Your task to perform on an android device: Go to Android settings Image 0: 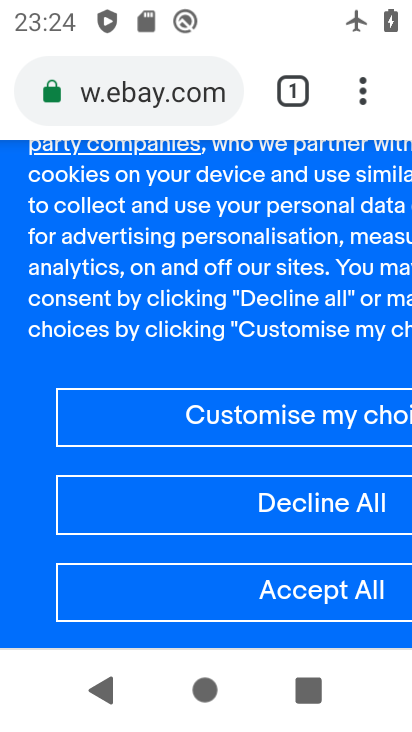
Step 0: press home button
Your task to perform on an android device: Go to Android settings Image 1: 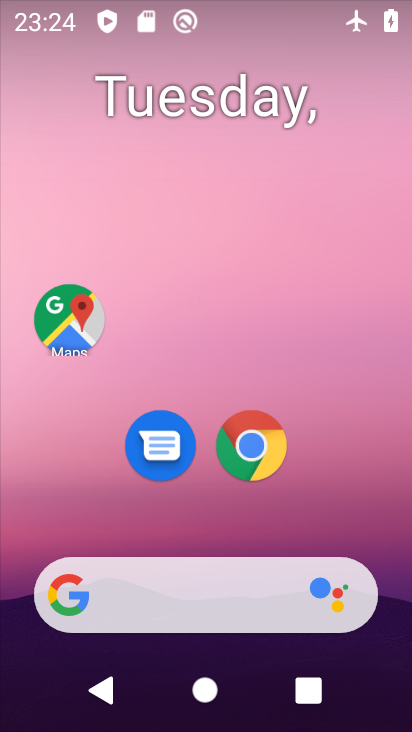
Step 1: drag from (307, 521) to (352, 92)
Your task to perform on an android device: Go to Android settings Image 2: 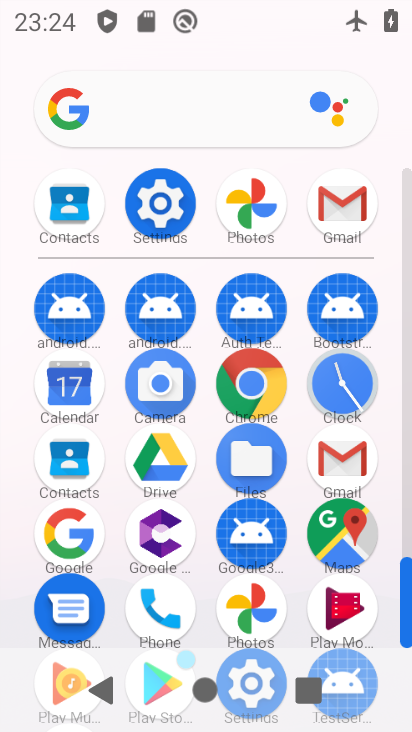
Step 2: click (159, 205)
Your task to perform on an android device: Go to Android settings Image 3: 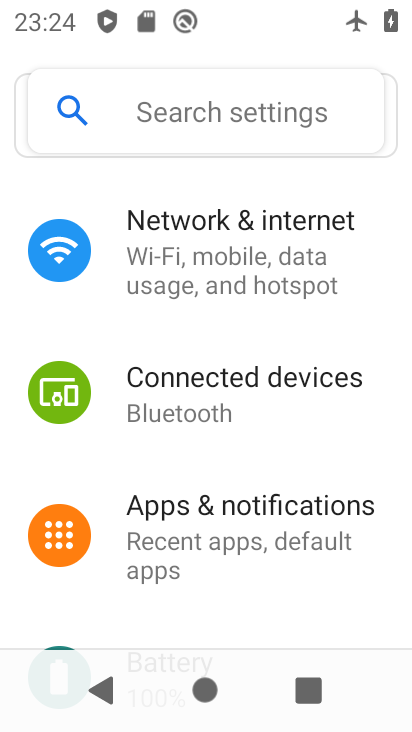
Step 3: drag from (264, 600) to (265, 288)
Your task to perform on an android device: Go to Android settings Image 4: 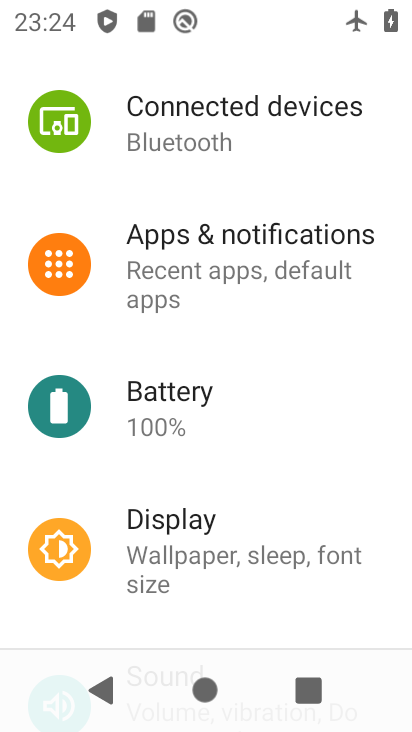
Step 4: drag from (238, 572) to (259, 310)
Your task to perform on an android device: Go to Android settings Image 5: 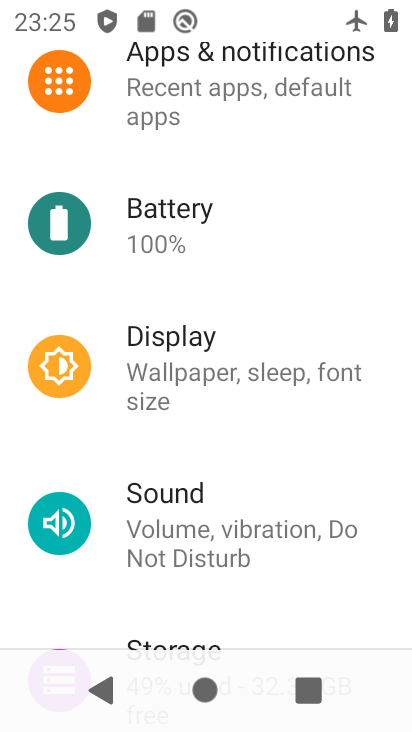
Step 5: drag from (245, 469) to (254, 225)
Your task to perform on an android device: Go to Android settings Image 6: 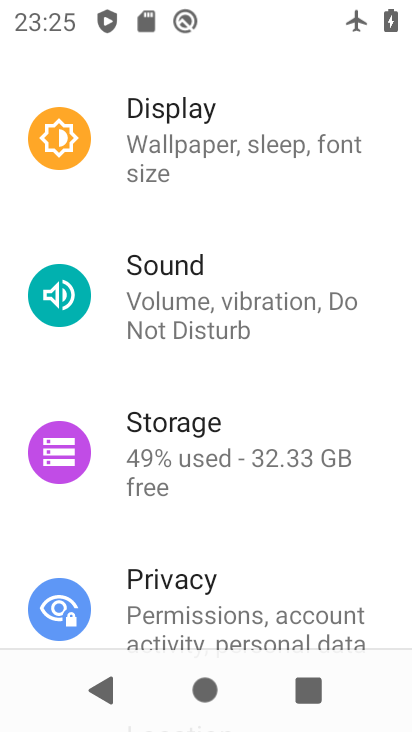
Step 6: drag from (214, 534) to (250, 278)
Your task to perform on an android device: Go to Android settings Image 7: 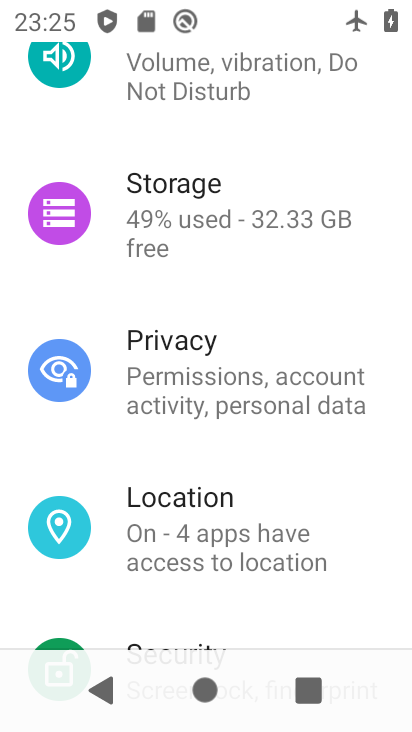
Step 7: drag from (228, 522) to (228, 267)
Your task to perform on an android device: Go to Android settings Image 8: 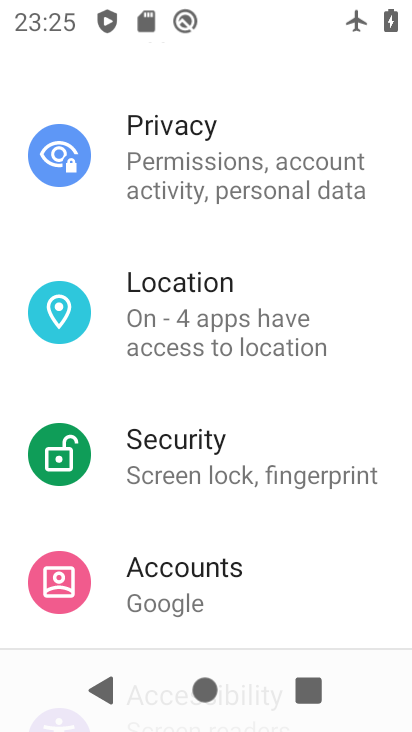
Step 8: drag from (217, 551) to (291, 284)
Your task to perform on an android device: Go to Android settings Image 9: 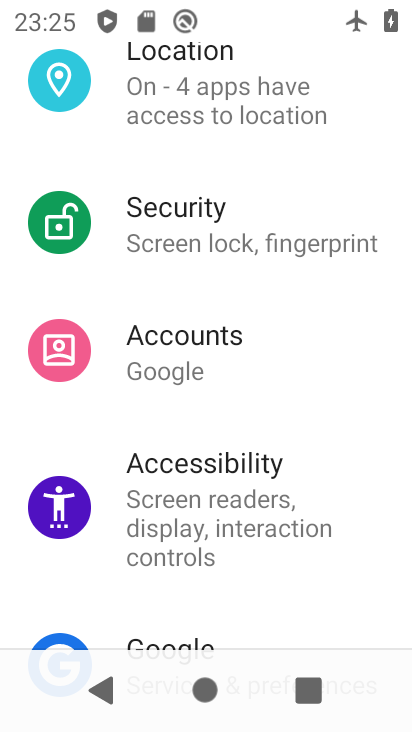
Step 9: drag from (236, 582) to (260, 331)
Your task to perform on an android device: Go to Android settings Image 10: 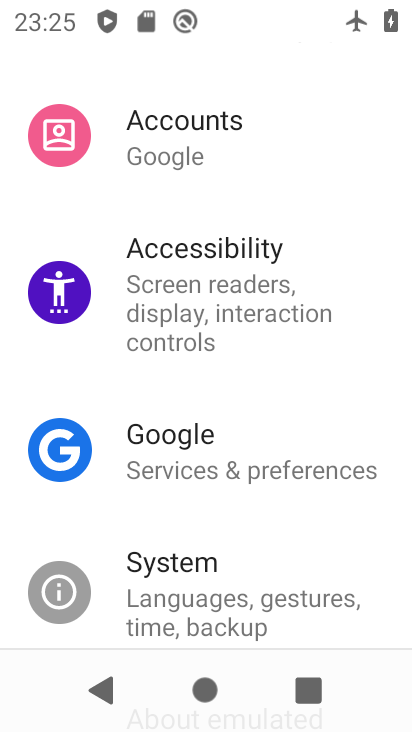
Step 10: click (217, 588)
Your task to perform on an android device: Go to Android settings Image 11: 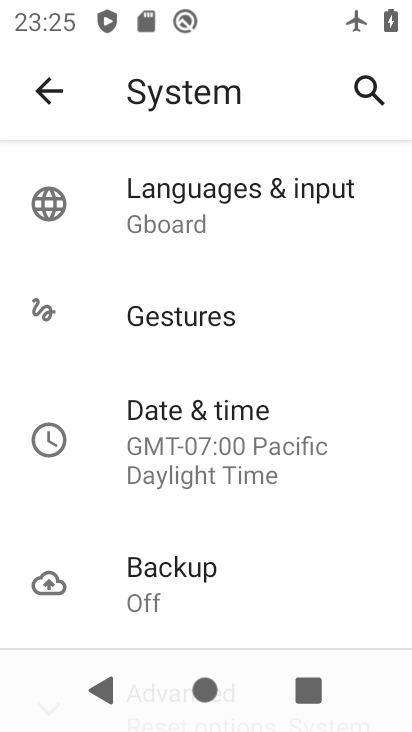
Step 11: task complete